Your task to perform on an android device: What is the news today? Image 0: 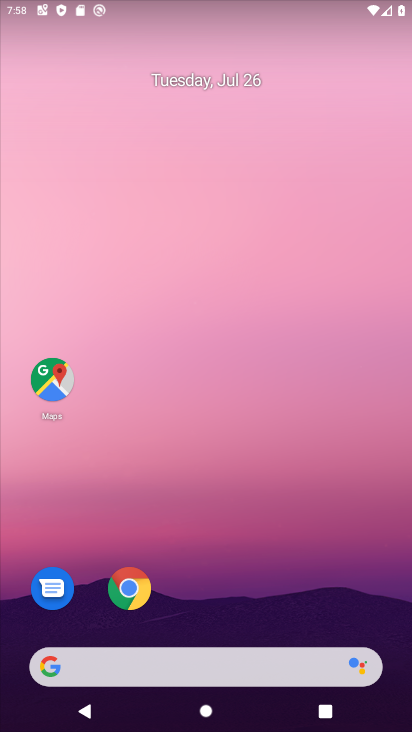
Step 0: click (194, 664)
Your task to perform on an android device: What is the news today? Image 1: 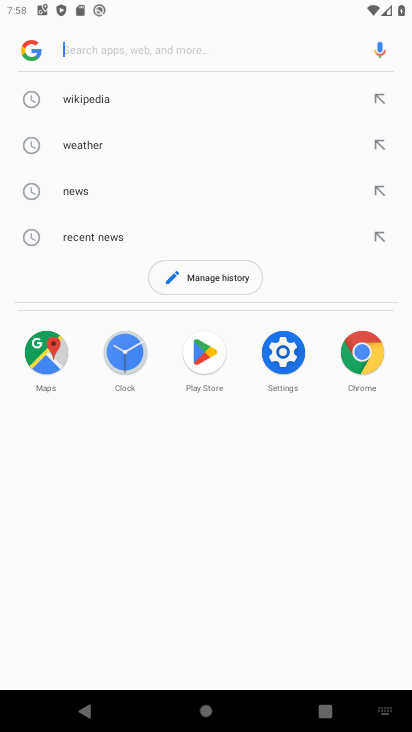
Step 1: type "What is the news today?"
Your task to perform on an android device: What is the news today? Image 2: 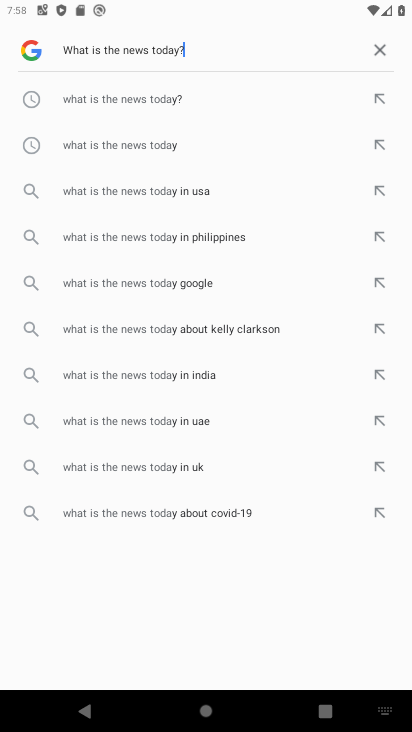
Step 2: press enter
Your task to perform on an android device: What is the news today? Image 3: 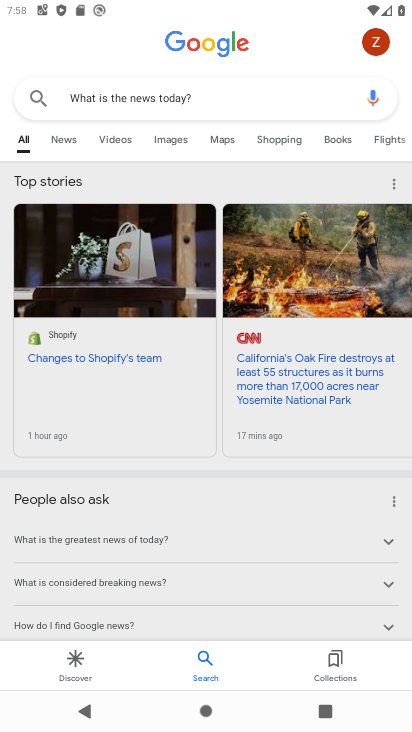
Step 3: task complete